Your task to perform on an android device: open a bookmark in the chrome app Image 0: 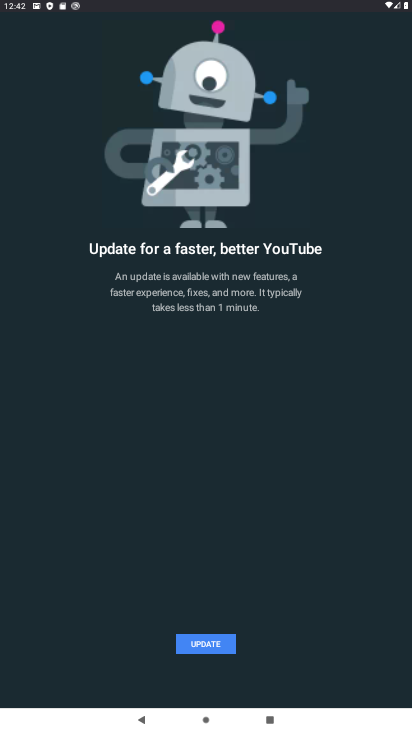
Step 0: press back button
Your task to perform on an android device: open a bookmark in the chrome app Image 1: 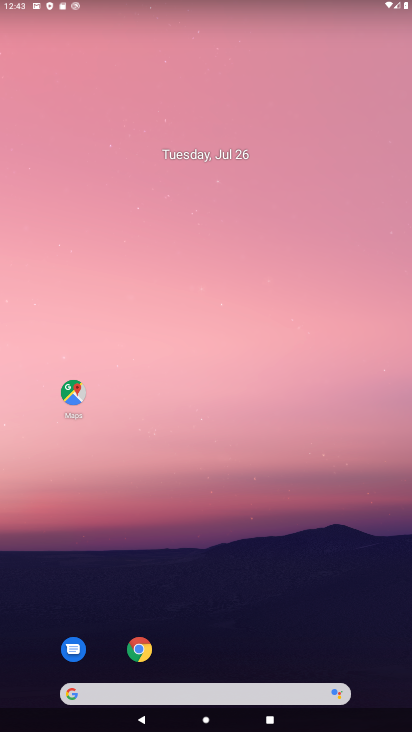
Step 1: click (148, 657)
Your task to perform on an android device: open a bookmark in the chrome app Image 2: 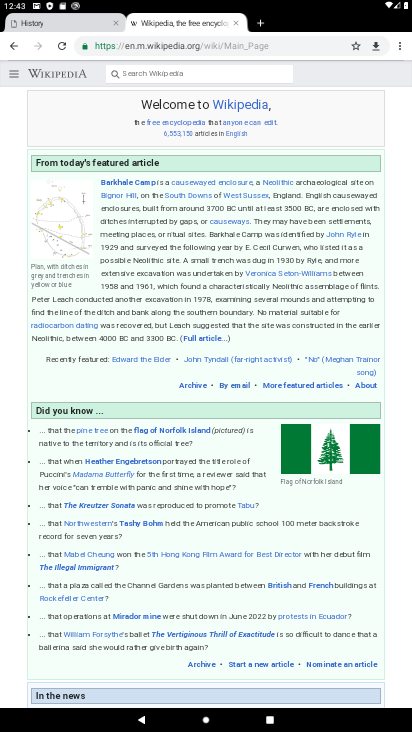
Step 2: click (400, 47)
Your task to perform on an android device: open a bookmark in the chrome app Image 3: 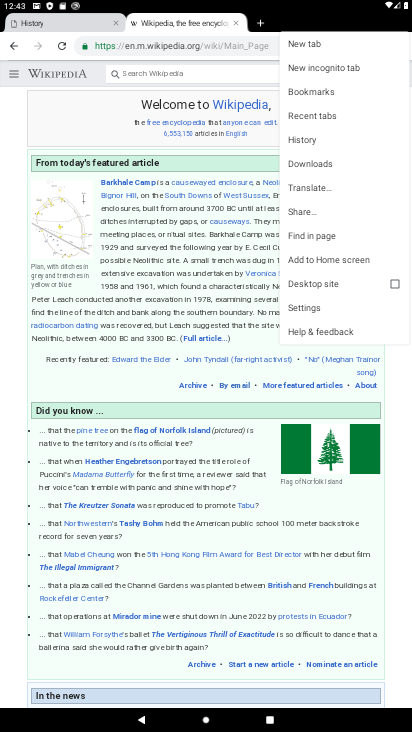
Step 3: click (318, 93)
Your task to perform on an android device: open a bookmark in the chrome app Image 4: 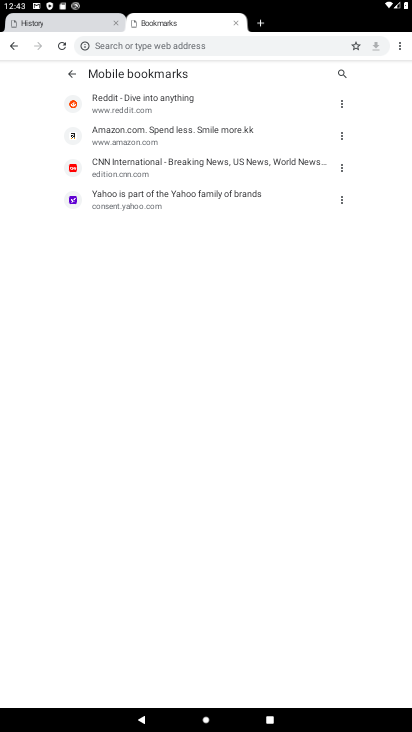
Step 4: click (165, 132)
Your task to perform on an android device: open a bookmark in the chrome app Image 5: 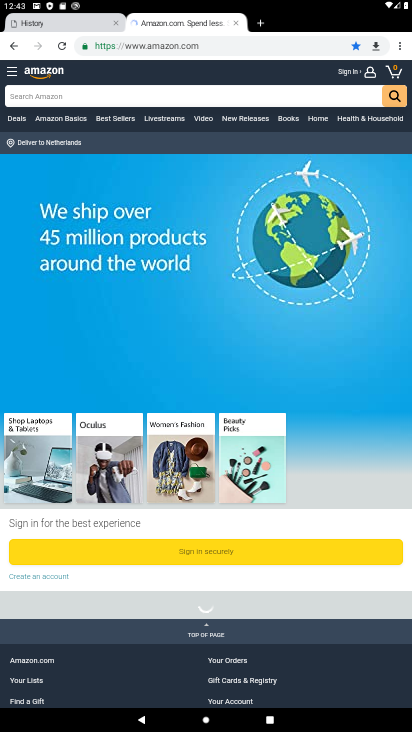
Step 5: task complete